Your task to perform on an android device: Open internet settings Image 0: 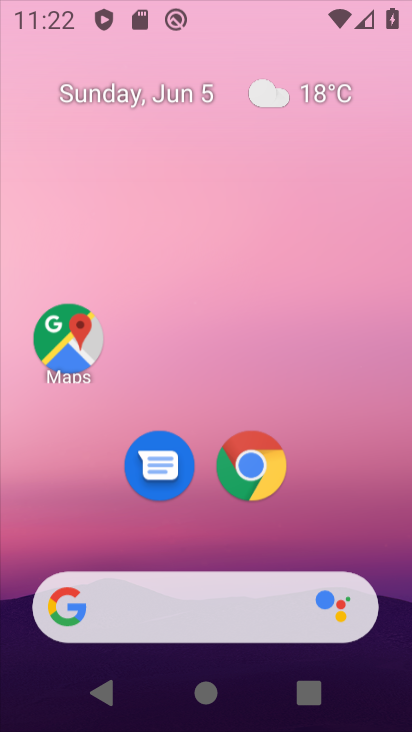
Step 0: click (377, 134)
Your task to perform on an android device: Open internet settings Image 1: 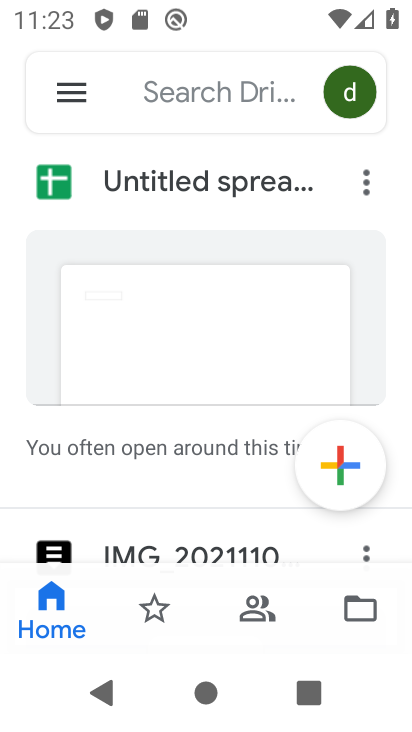
Step 1: press home button
Your task to perform on an android device: Open internet settings Image 2: 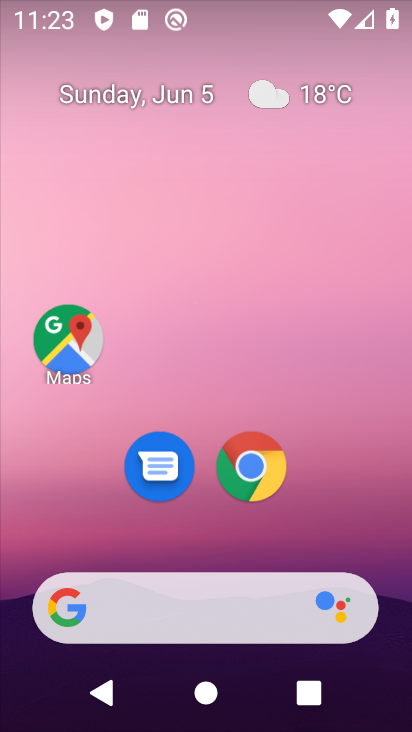
Step 2: drag from (380, 504) to (329, 164)
Your task to perform on an android device: Open internet settings Image 3: 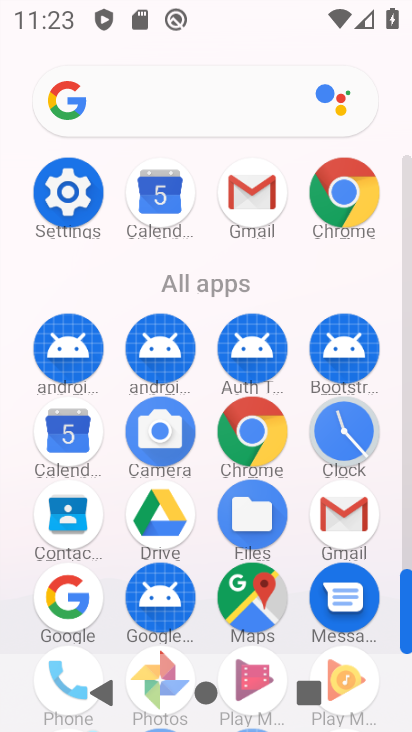
Step 3: click (70, 197)
Your task to perform on an android device: Open internet settings Image 4: 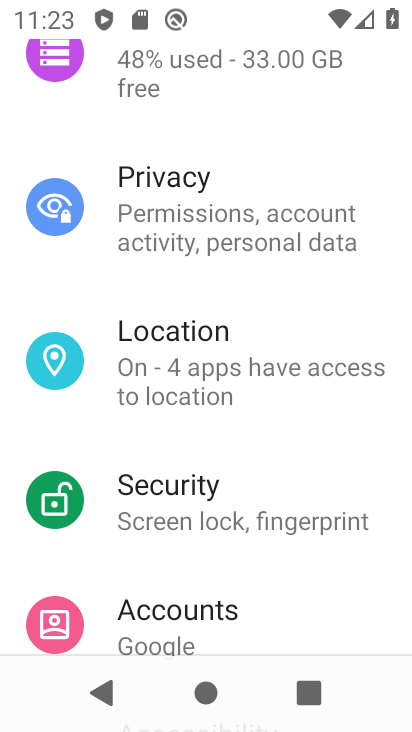
Step 4: drag from (213, 180) to (236, 570)
Your task to perform on an android device: Open internet settings Image 5: 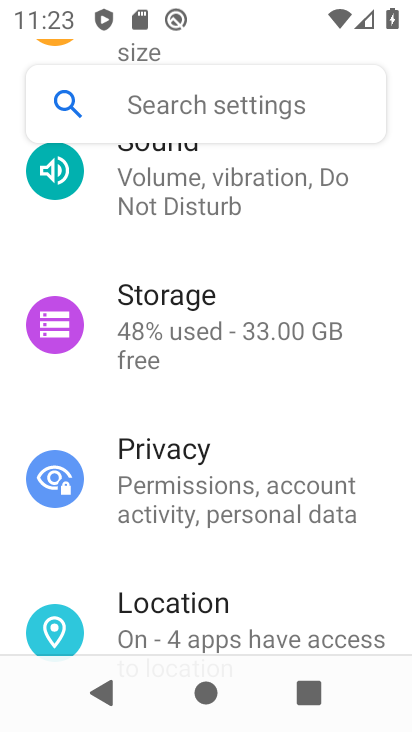
Step 5: drag from (250, 290) to (242, 557)
Your task to perform on an android device: Open internet settings Image 6: 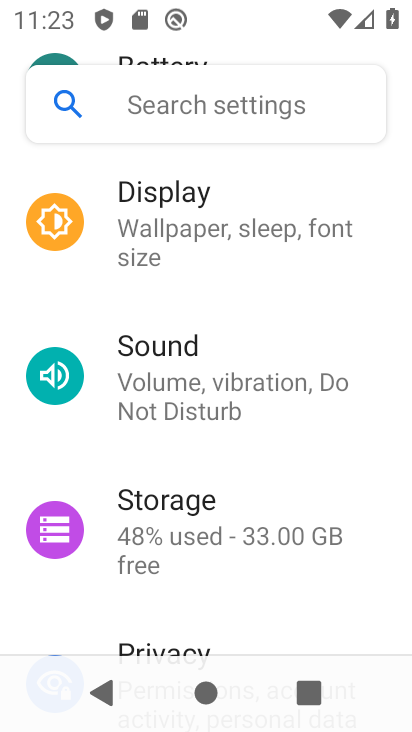
Step 6: drag from (269, 261) to (267, 654)
Your task to perform on an android device: Open internet settings Image 7: 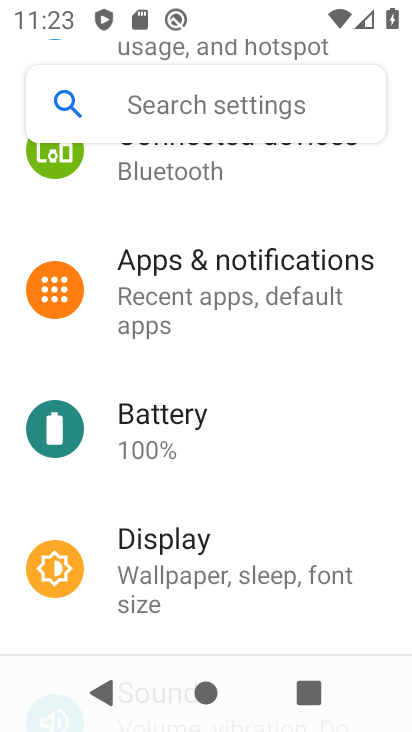
Step 7: drag from (255, 216) to (234, 631)
Your task to perform on an android device: Open internet settings Image 8: 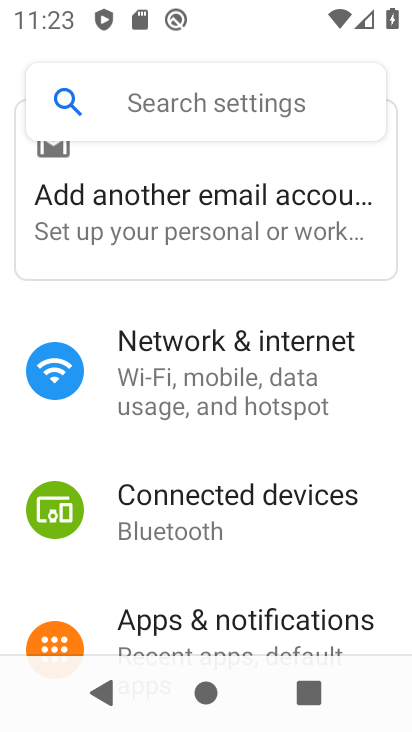
Step 8: click (204, 379)
Your task to perform on an android device: Open internet settings Image 9: 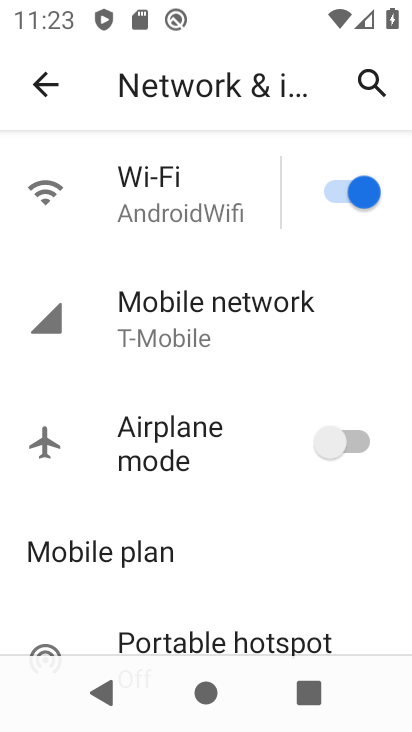
Step 9: task complete